Your task to perform on an android device: Open my contact list Image 0: 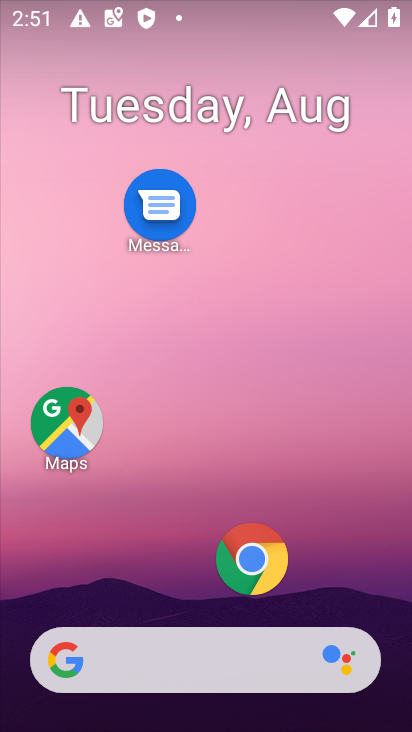
Step 0: drag from (150, 567) to (138, 76)
Your task to perform on an android device: Open my contact list Image 1: 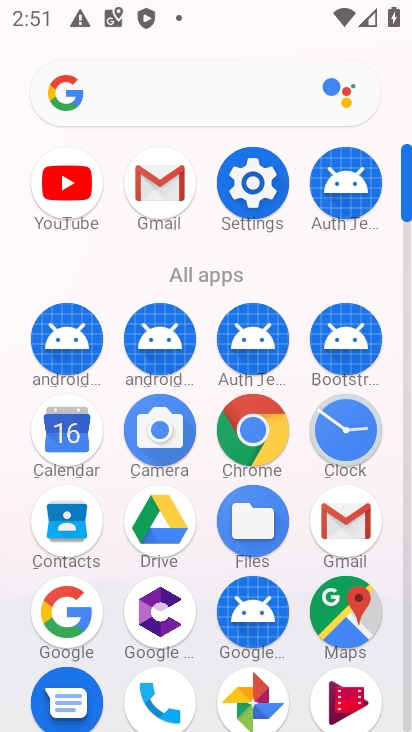
Step 1: click (68, 520)
Your task to perform on an android device: Open my contact list Image 2: 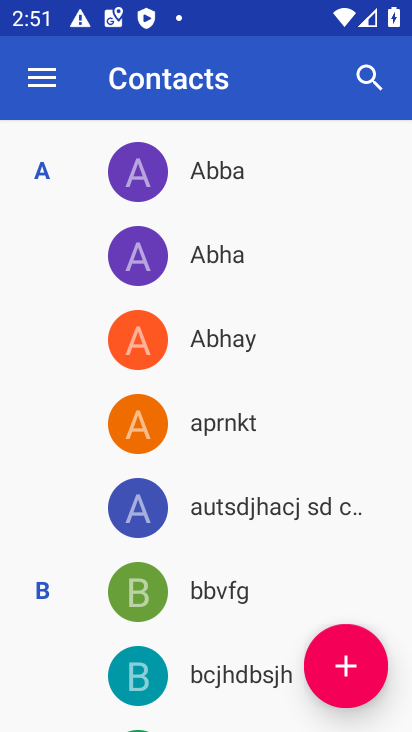
Step 2: task complete